Your task to perform on an android device: Open my contact list Image 0: 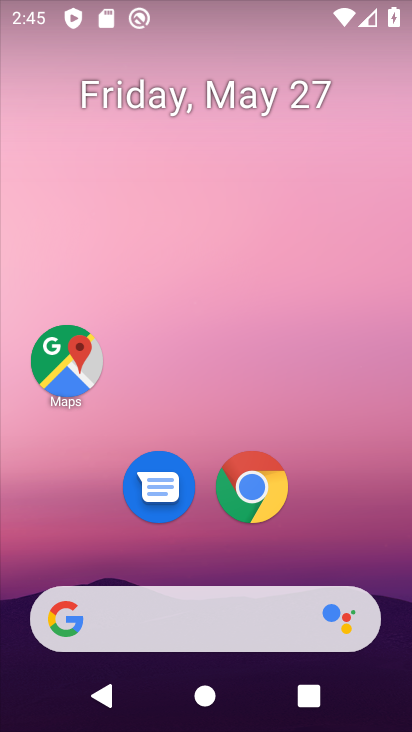
Step 0: drag from (147, 731) to (167, 116)
Your task to perform on an android device: Open my contact list Image 1: 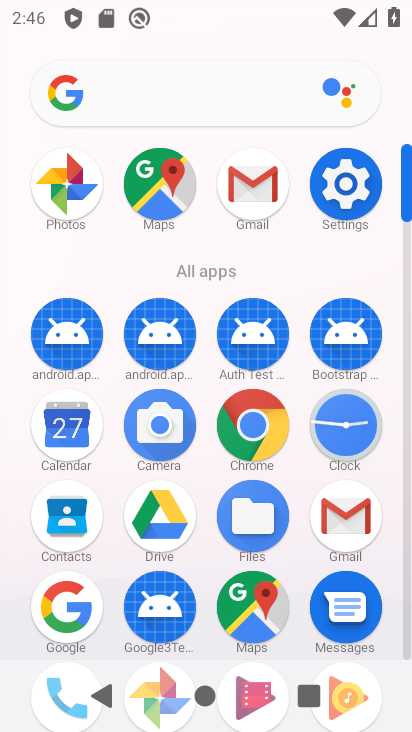
Step 1: click (49, 536)
Your task to perform on an android device: Open my contact list Image 2: 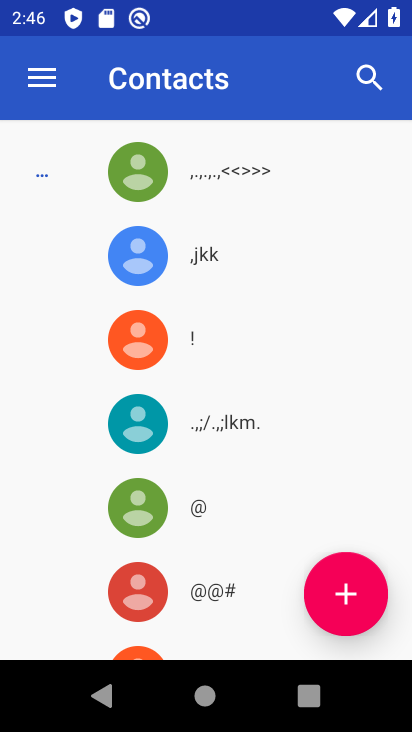
Step 2: task complete